Your task to perform on an android device: Open settings on Google Maps Image 0: 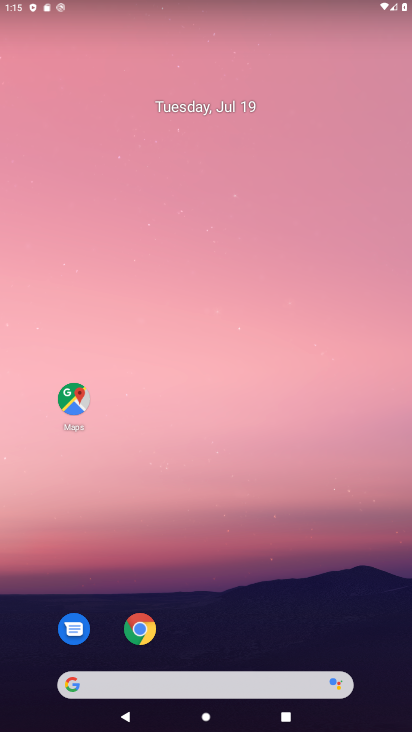
Step 0: click (72, 415)
Your task to perform on an android device: Open settings on Google Maps Image 1: 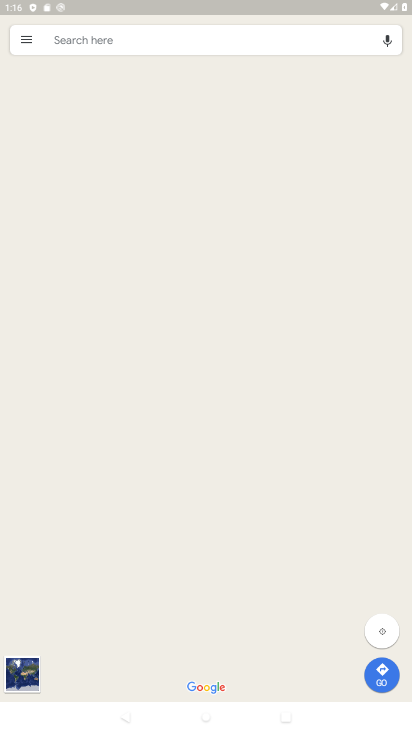
Step 1: click (27, 40)
Your task to perform on an android device: Open settings on Google Maps Image 2: 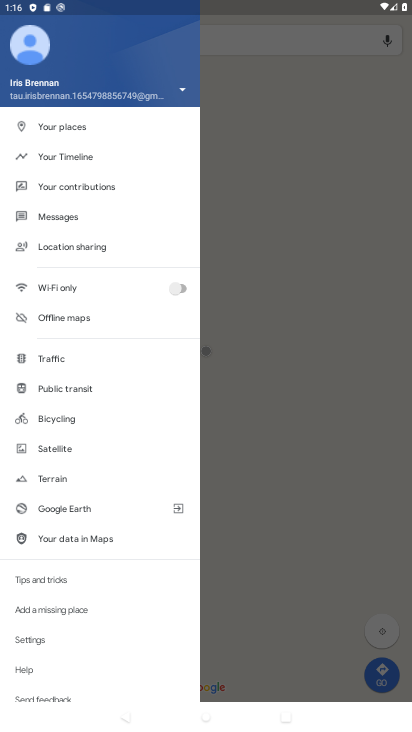
Step 2: click (42, 637)
Your task to perform on an android device: Open settings on Google Maps Image 3: 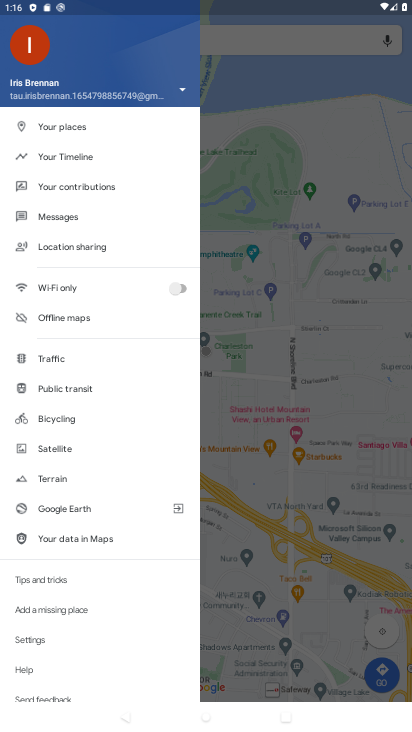
Step 3: click (31, 643)
Your task to perform on an android device: Open settings on Google Maps Image 4: 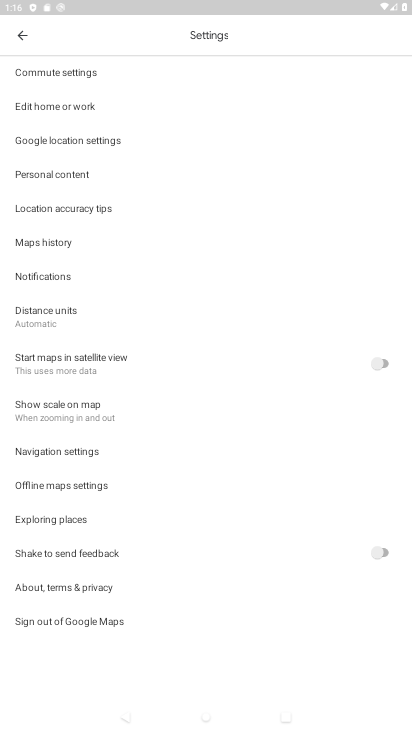
Step 4: task complete